Your task to perform on an android device: Open Maps and search for coffee Image 0: 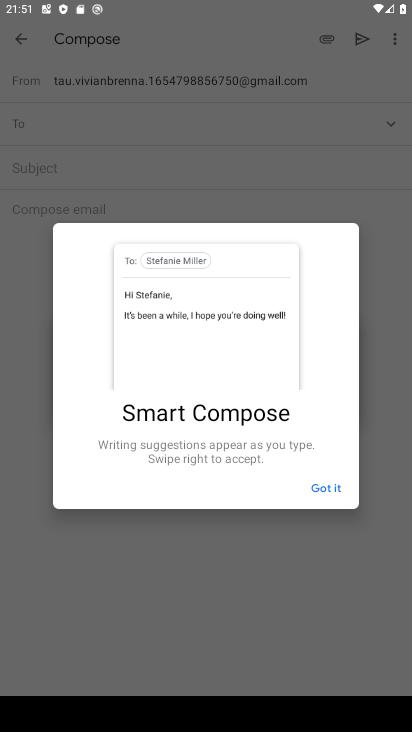
Step 0: press home button
Your task to perform on an android device: Open Maps and search for coffee Image 1: 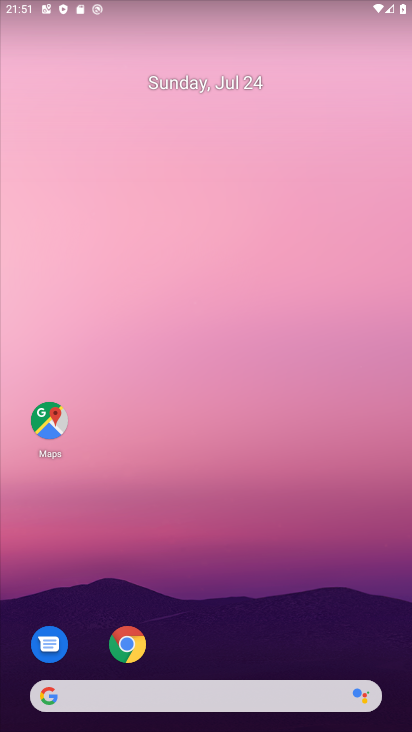
Step 1: click (49, 417)
Your task to perform on an android device: Open Maps and search for coffee Image 2: 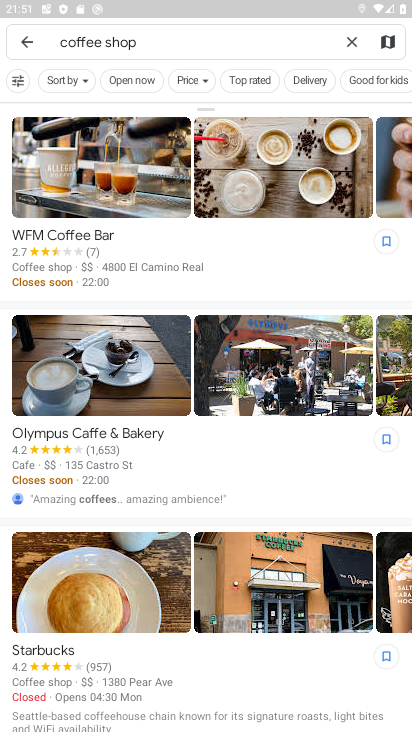
Step 2: drag from (256, 197) to (255, 537)
Your task to perform on an android device: Open Maps and search for coffee Image 3: 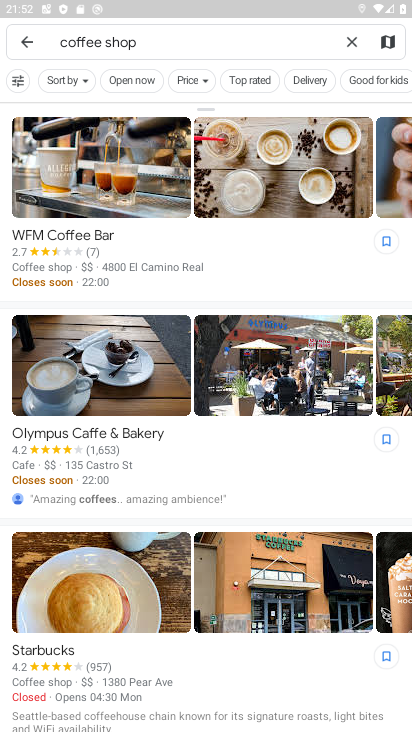
Step 3: drag from (188, 213) to (253, 630)
Your task to perform on an android device: Open Maps and search for coffee Image 4: 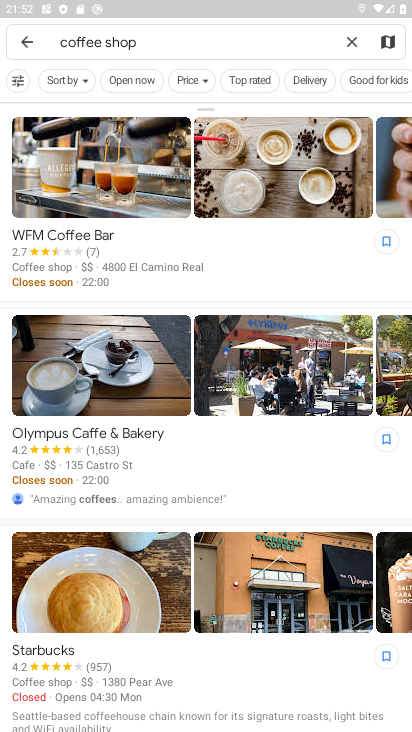
Step 4: drag from (238, 163) to (202, 654)
Your task to perform on an android device: Open Maps and search for coffee Image 5: 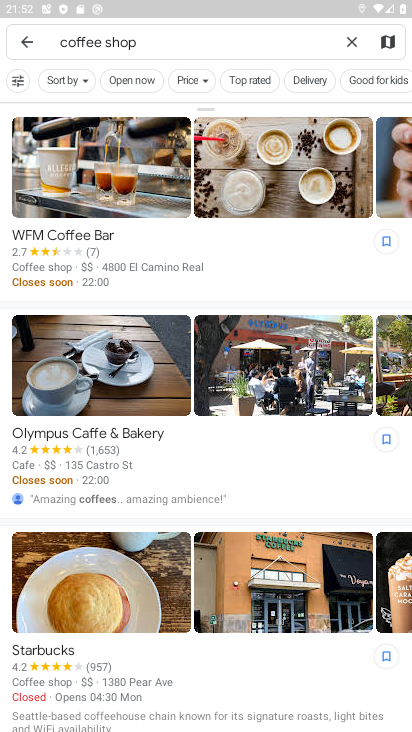
Step 5: drag from (226, 607) to (168, 161)
Your task to perform on an android device: Open Maps and search for coffee Image 6: 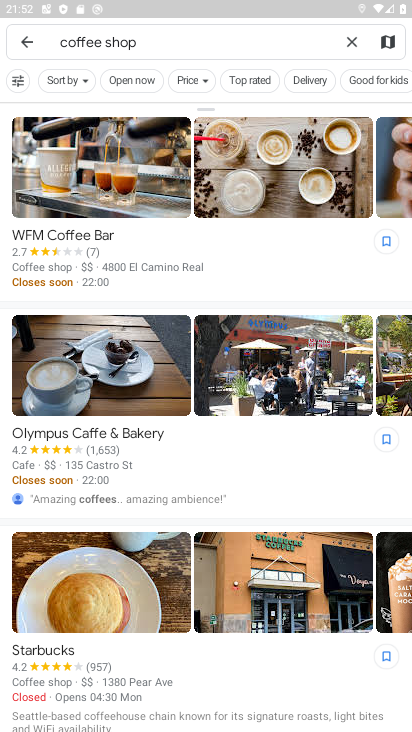
Step 6: click (349, 40)
Your task to perform on an android device: Open Maps and search for coffee Image 7: 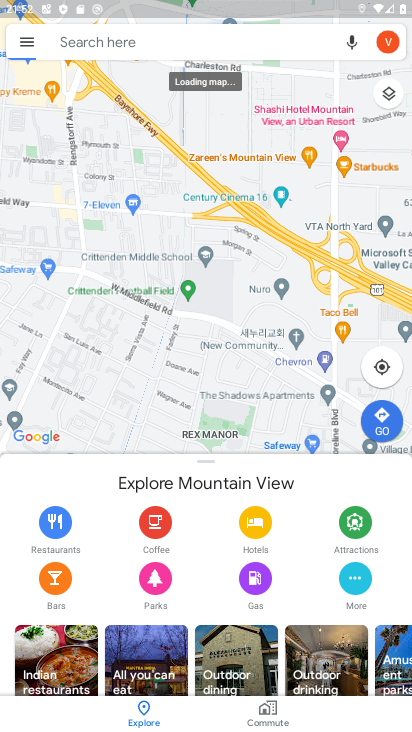
Step 7: click (128, 39)
Your task to perform on an android device: Open Maps and search for coffee Image 8: 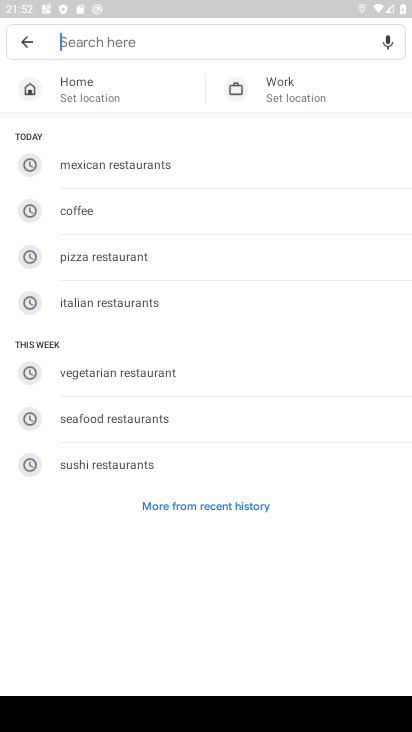
Step 8: type "coffee"
Your task to perform on an android device: Open Maps and search for coffee Image 9: 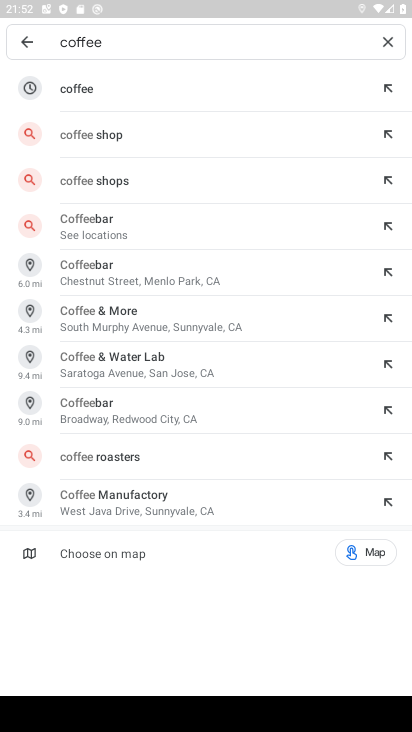
Step 9: click (56, 90)
Your task to perform on an android device: Open Maps and search for coffee Image 10: 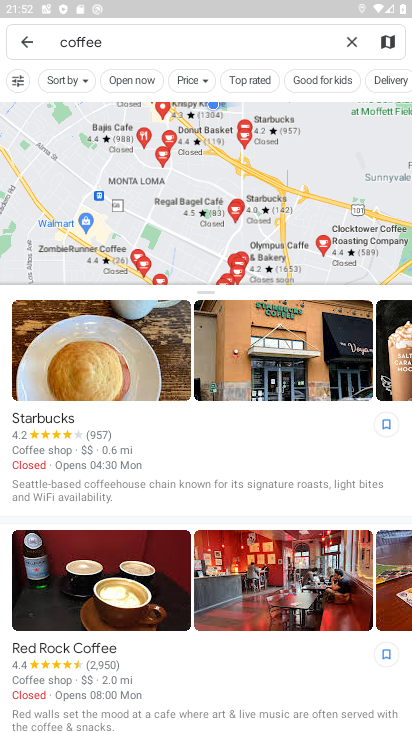
Step 10: task complete